Your task to perform on an android device: Open internet settings Image 0: 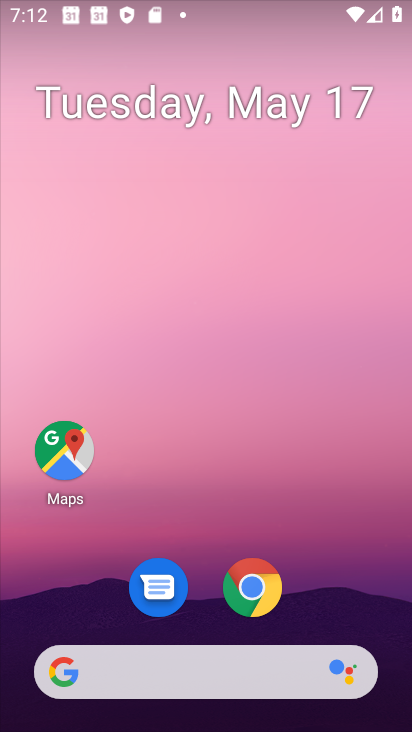
Step 0: drag from (242, 691) to (263, 184)
Your task to perform on an android device: Open internet settings Image 1: 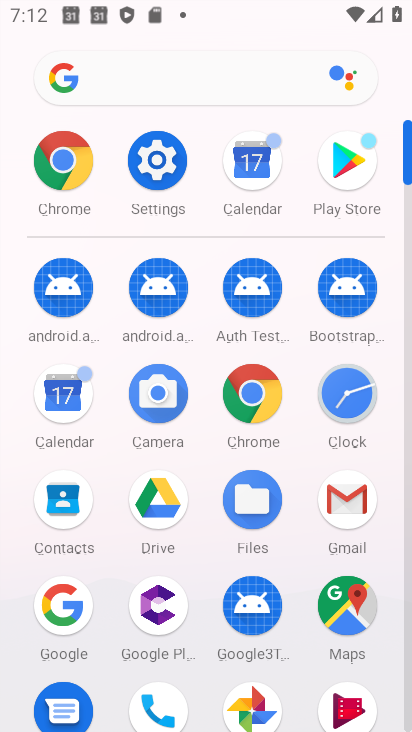
Step 1: click (158, 158)
Your task to perform on an android device: Open internet settings Image 2: 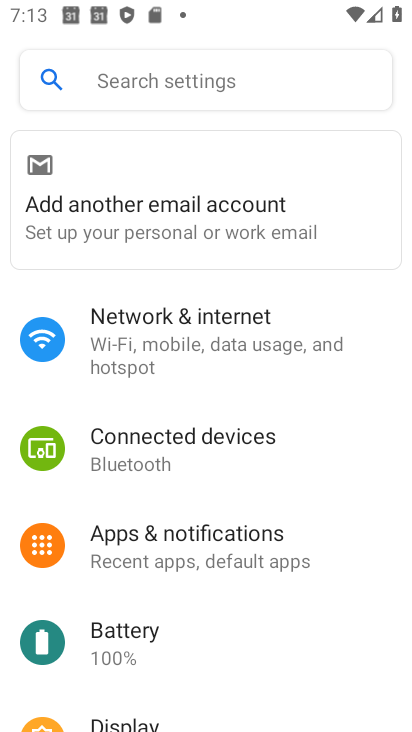
Step 2: click (174, 329)
Your task to perform on an android device: Open internet settings Image 3: 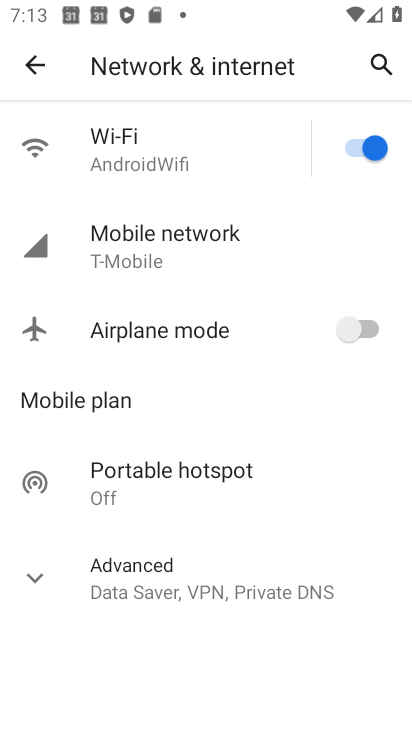
Step 3: task complete